Your task to perform on an android device: Go to settings Image 0: 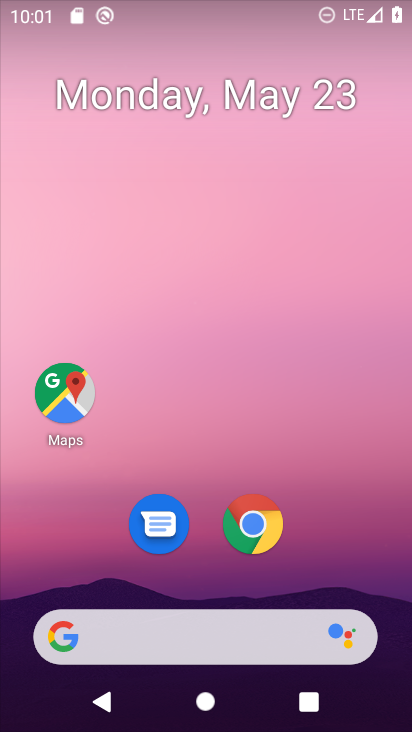
Step 0: drag from (205, 452) to (237, 50)
Your task to perform on an android device: Go to settings Image 1: 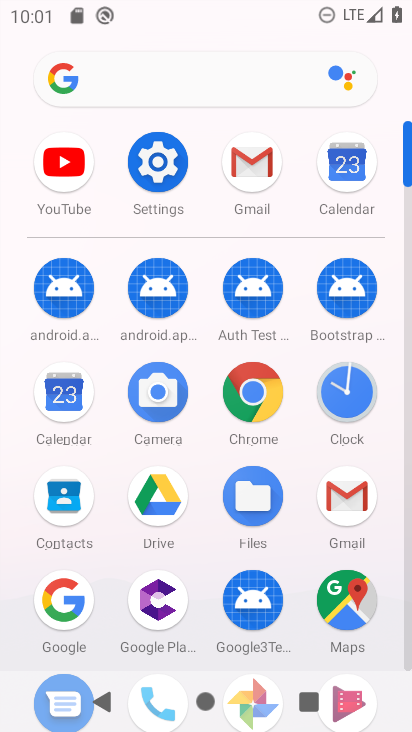
Step 1: click (172, 155)
Your task to perform on an android device: Go to settings Image 2: 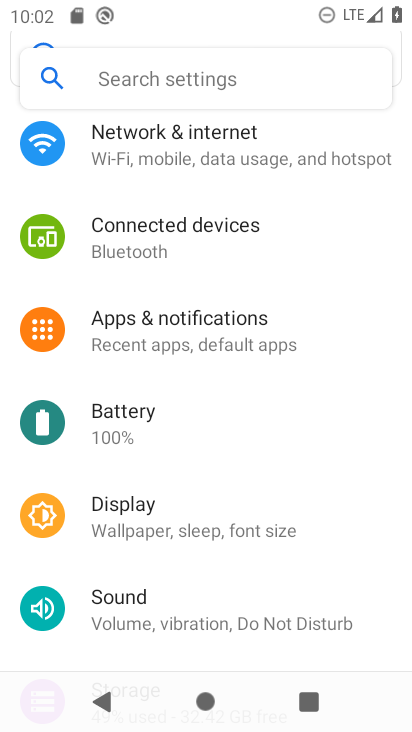
Step 2: task complete